Your task to perform on an android device: turn on notifications settings in the gmail app Image 0: 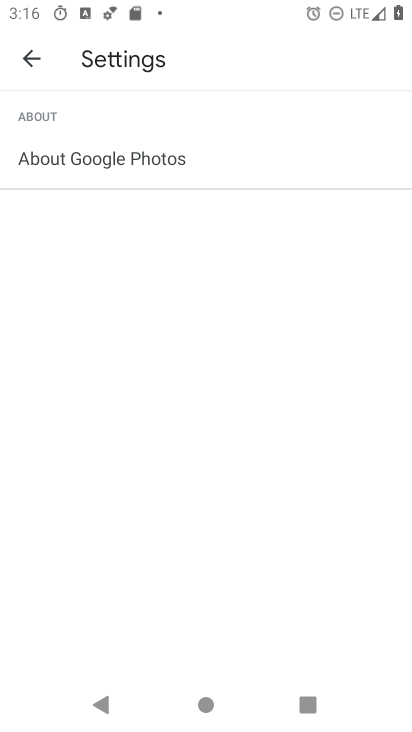
Step 0: press home button
Your task to perform on an android device: turn on notifications settings in the gmail app Image 1: 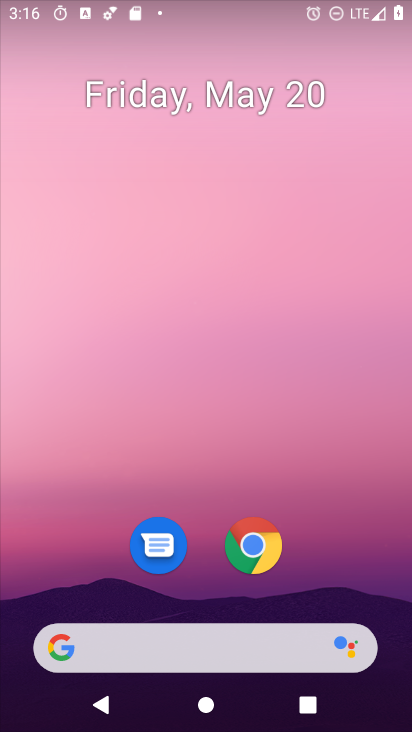
Step 1: drag from (313, 633) to (307, 120)
Your task to perform on an android device: turn on notifications settings in the gmail app Image 2: 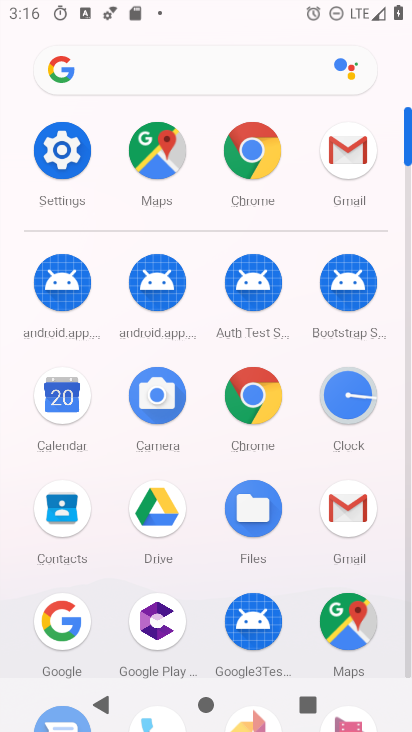
Step 2: click (330, 508)
Your task to perform on an android device: turn on notifications settings in the gmail app Image 3: 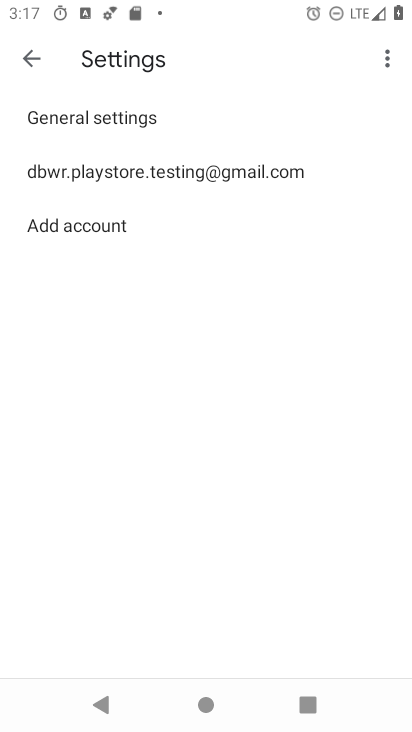
Step 3: press back button
Your task to perform on an android device: turn on notifications settings in the gmail app Image 4: 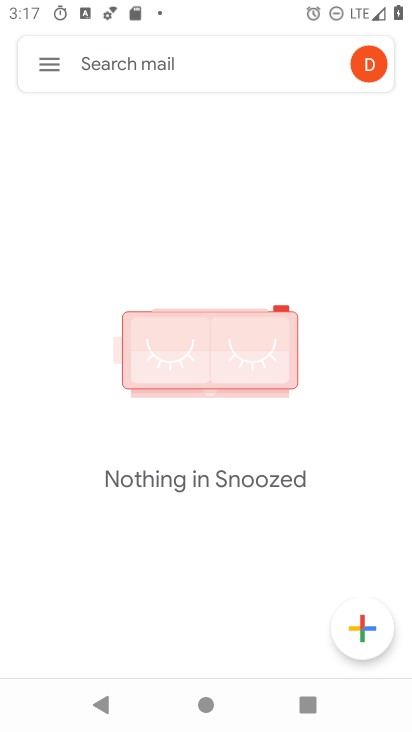
Step 4: click (42, 76)
Your task to perform on an android device: turn on notifications settings in the gmail app Image 5: 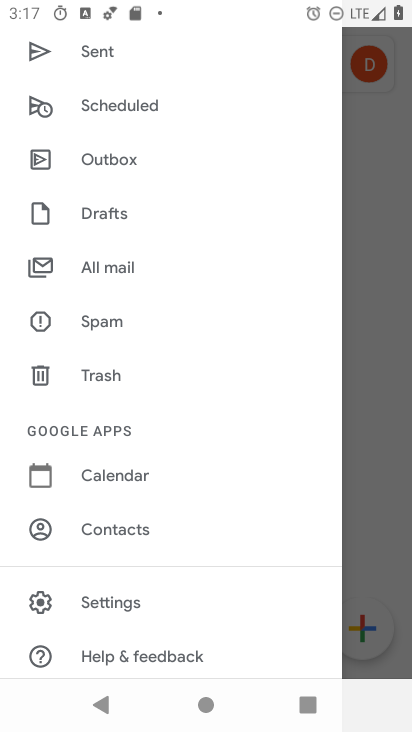
Step 5: click (151, 602)
Your task to perform on an android device: turn on notifications settings in the gmail app Image 6: 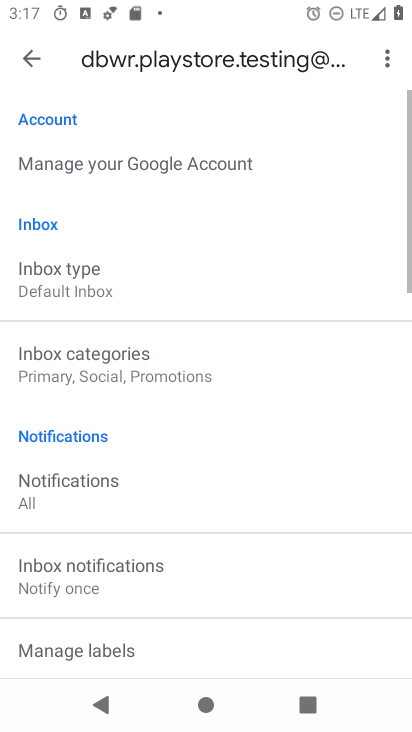
Step 6: drag from (153, 594) to (157, 239)
Your task to perform on an android device: turn on notifications settings in the gmail app Image 7: 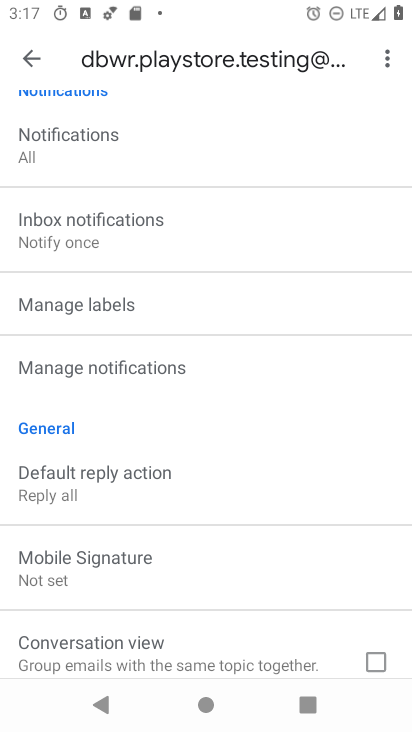
Step 7: click (159, 362)
Your task to perform on an android device: turn on notifications settings in the gmail app Image 8: 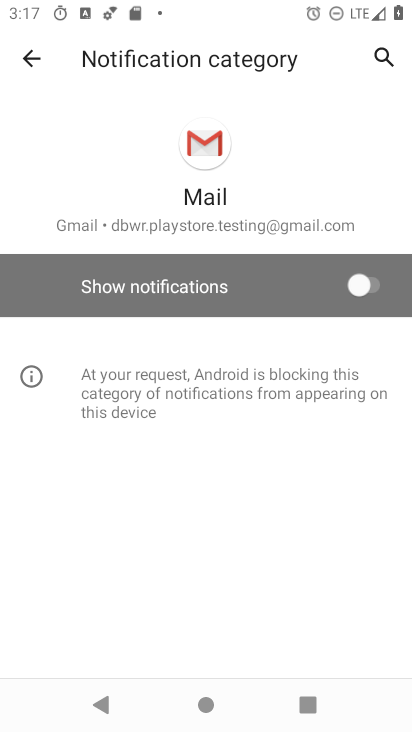
Step 8: click (370, 285)
Your task to perform on an android device: turn on notifications settings in the gmail app Image 9: 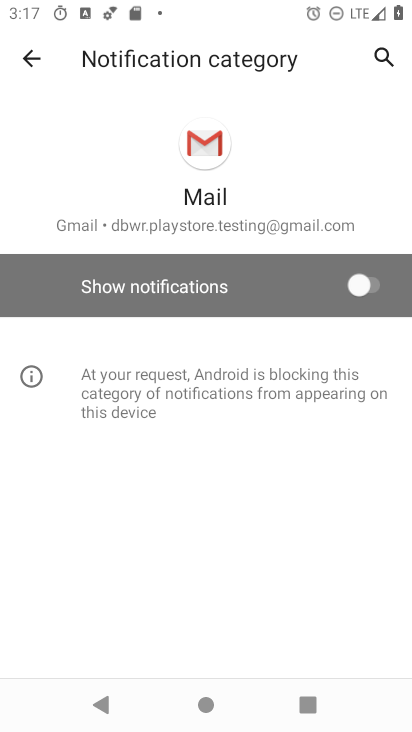
Step 9: click (374, 282)
Your task to perform on an android device: turn on notifications settings in the gmail app Image 10: 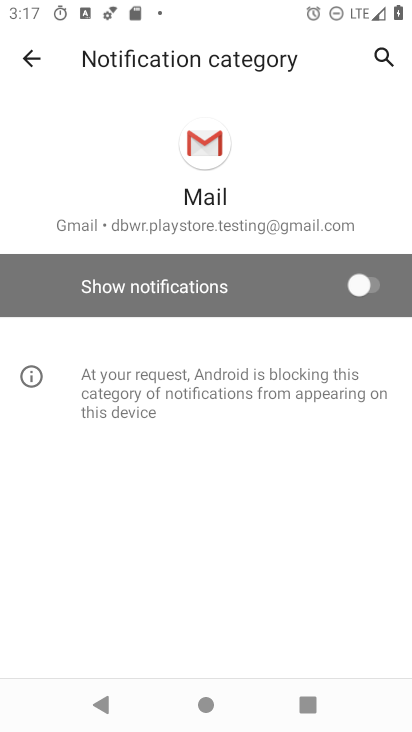
Step 10: click (361, 285)
Your task to perform on an android device: turn on notifications settings in the gmail app Image 11: 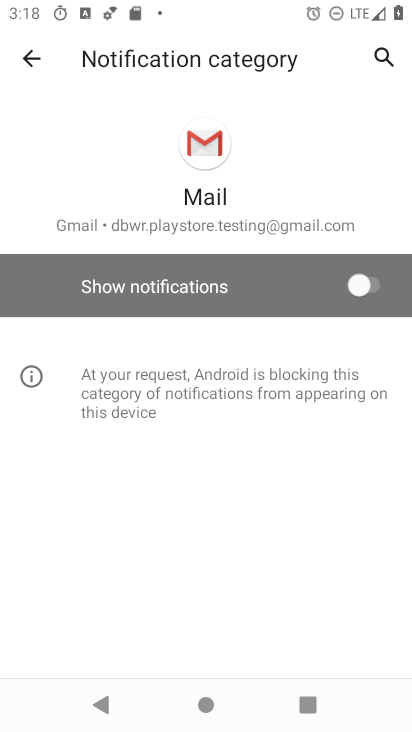
Step 11: click (379, 283)
Your task to perform on an android device: turn on notifications settings in the gmail app Image 12: 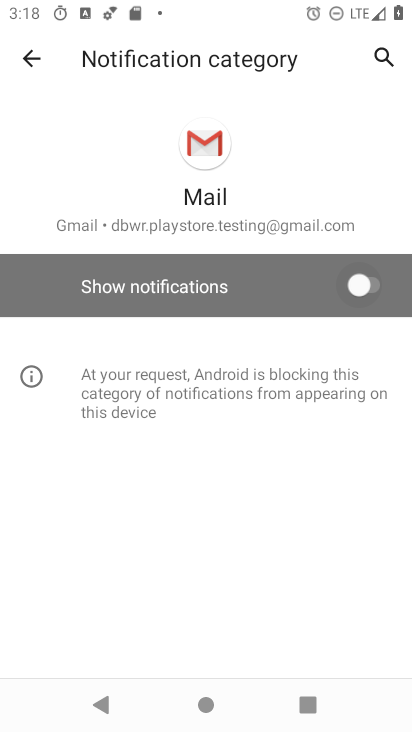
Step 12: click (379, 283)
Your task to perform on an android device: turn on notifications settings in the gmail app Image 13: 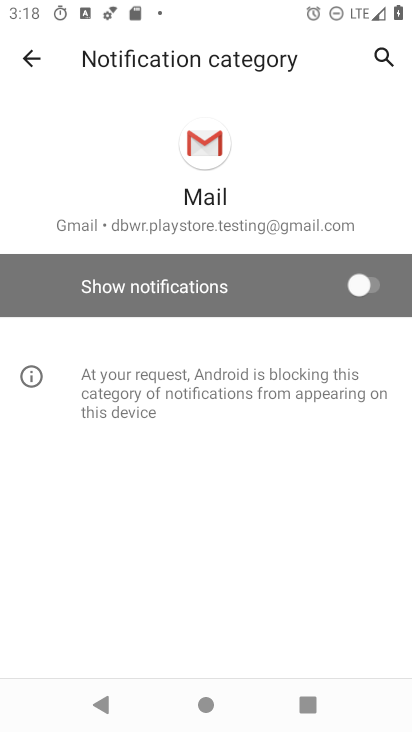
Step 13: task complete